Your task to perform on an android device: turn on wifi Image 0: 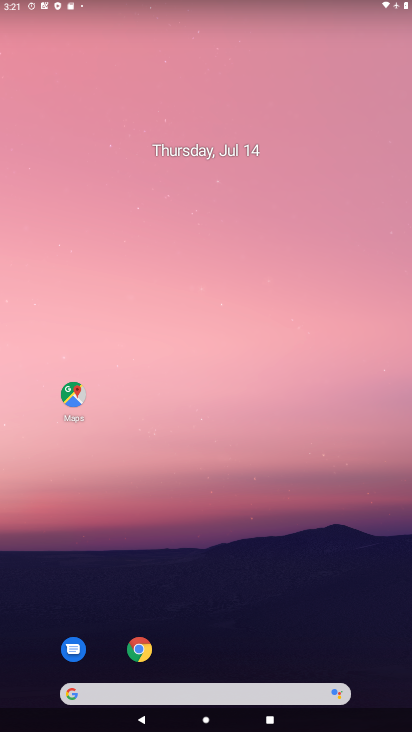
Step 0: drag from (194, 646) to (213, 136)
Your task to perform on an android device: turn on wifi Image 1: 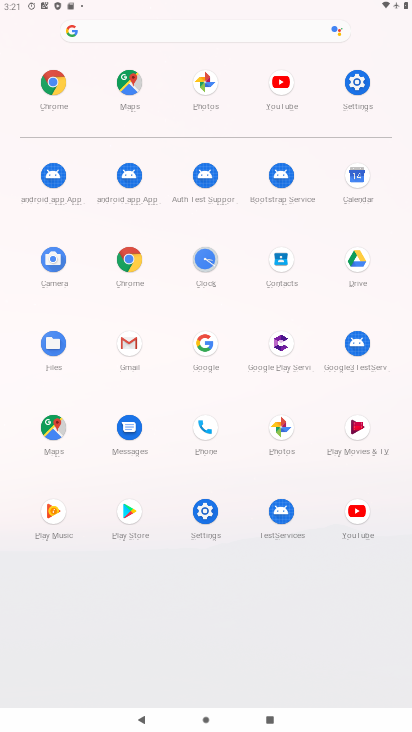
Step 1: click (212, 518)
Your task to perform on an android device: turn on wifi Image 2: 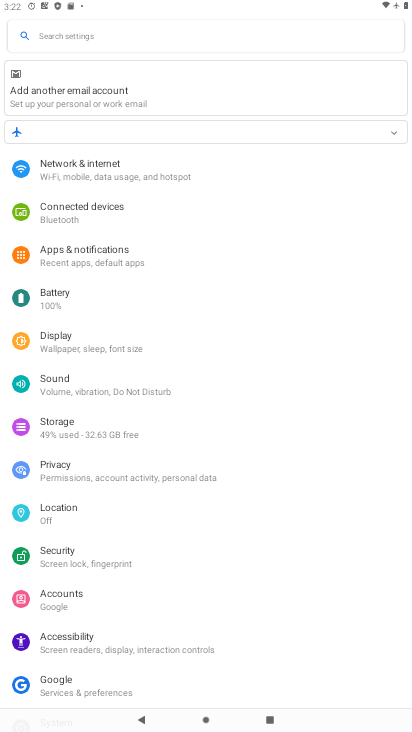
Step 2: click (114, 171)
Your task to perform on an android device: turn on wifi Image 3: 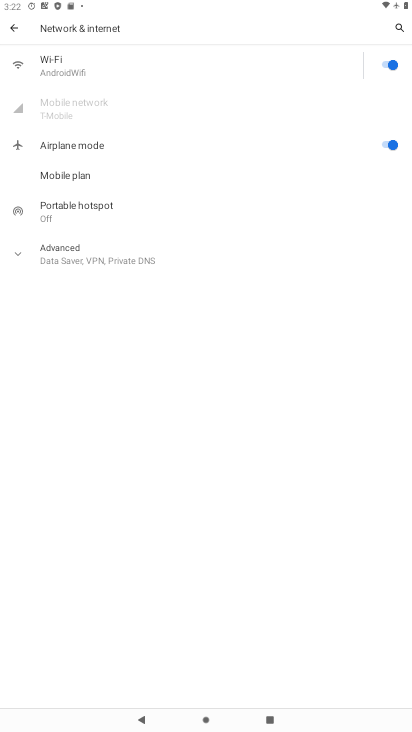
Step 3: task complete